Your task to perform on an android device: Go to location settings Image 0: 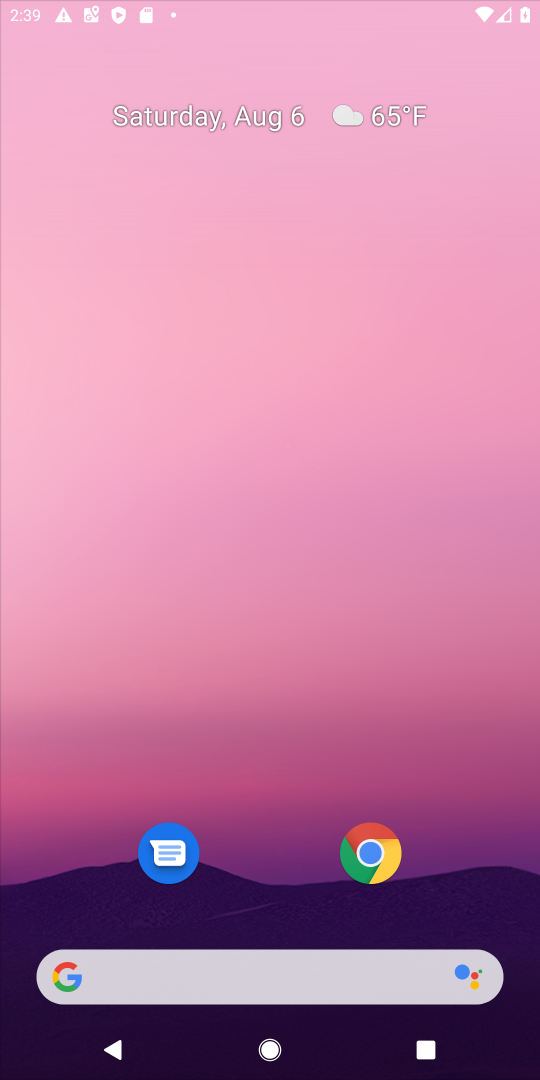
Step 0: press back button
Your task to perform on an android device: Go to location settings Image 1: 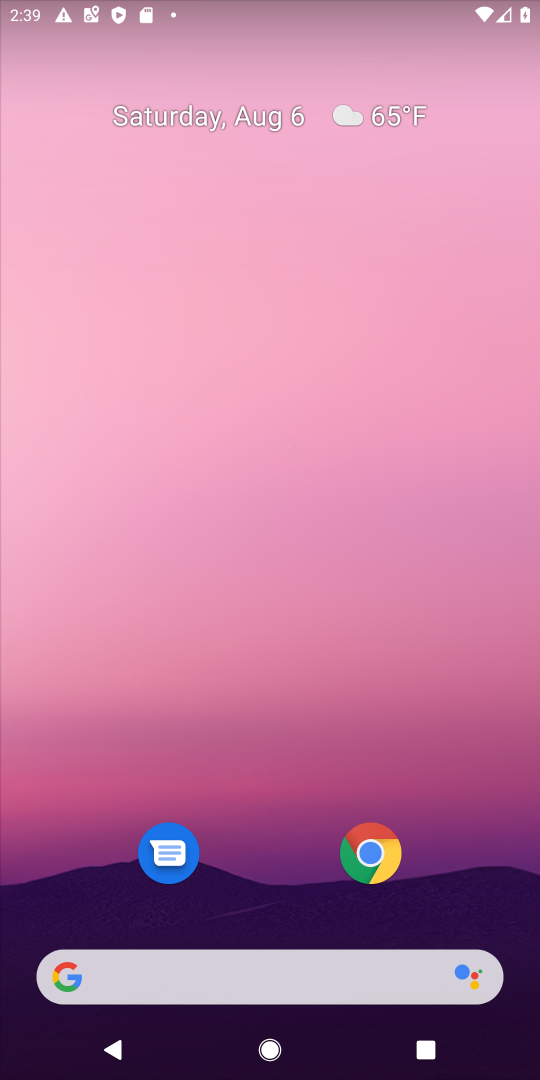
Step 1: drag from (259, 920) to (375, 13)
Your task to perform on an android device: Go to location settings Image 2: 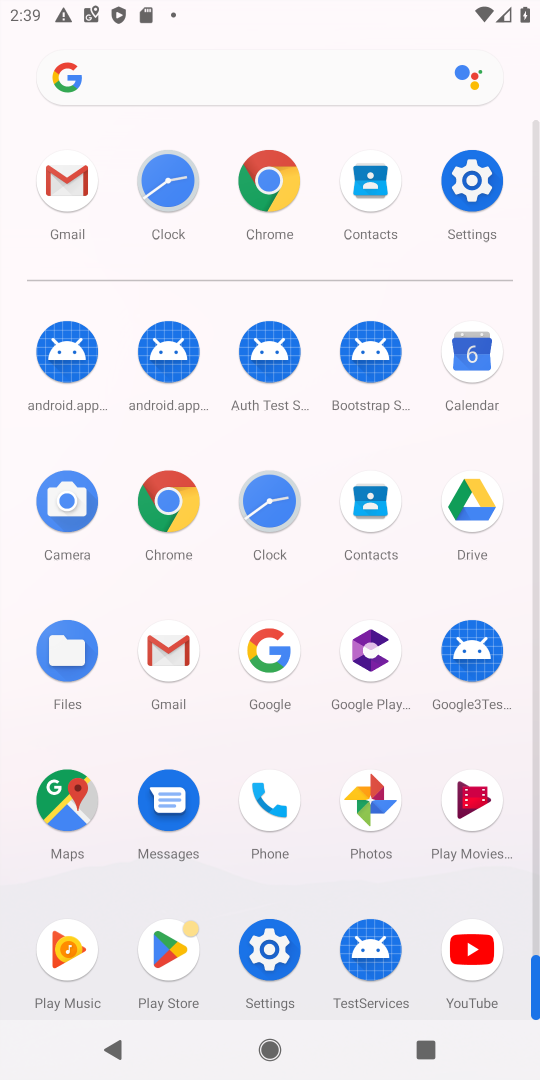
Step 2: click (461, 181)
Your task to perform on an android device: Go to location settings Image 3: 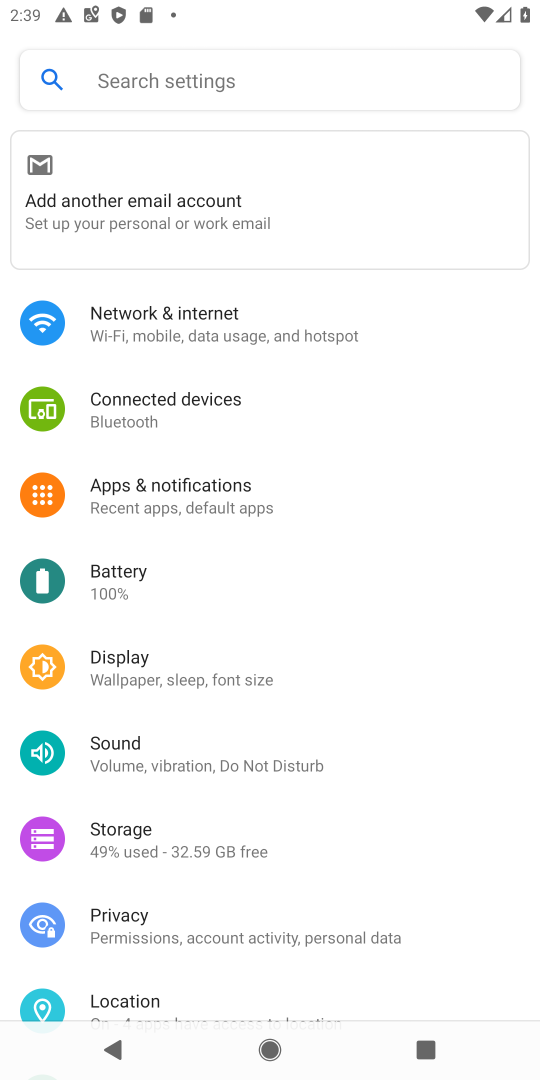
Step 3: click (123, 1000)
Your task to perform on an android device: Go to location settings Image 4: 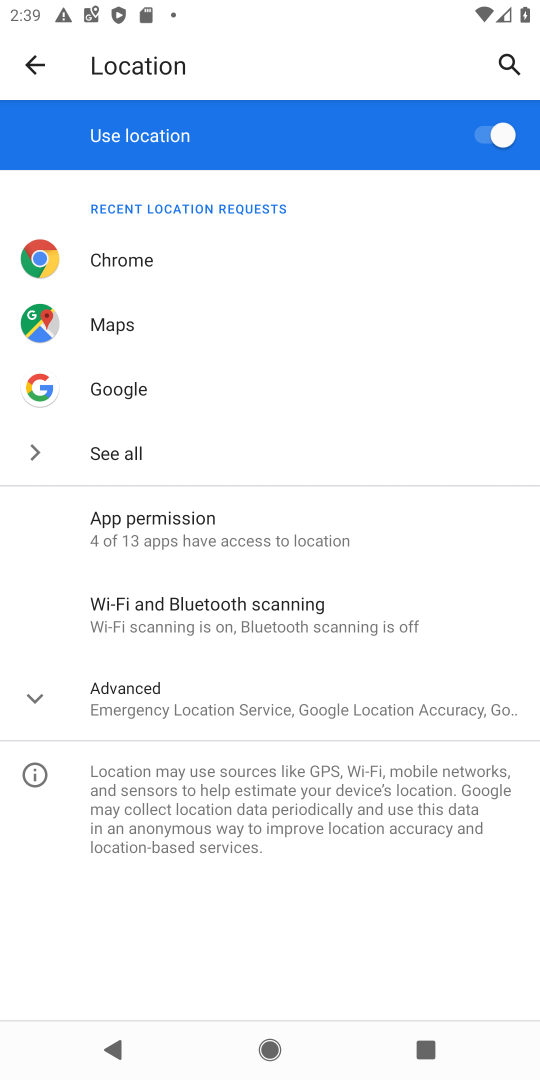
Step 4: task complete